Your task to perform on an android device: Open the phone app and click the voicemail tab. Image 0: 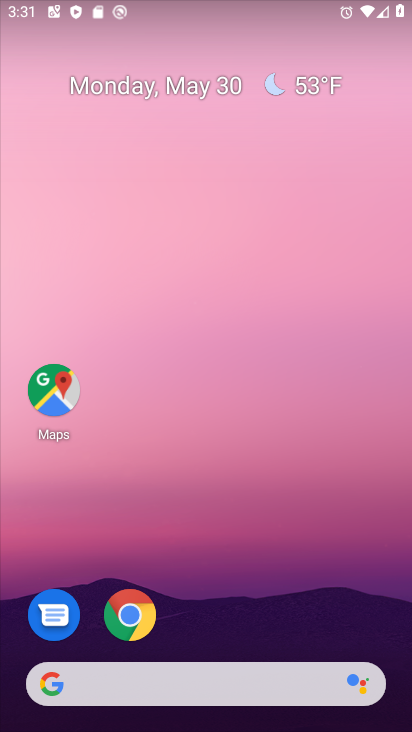
Step 0: press home button
Your task to perform on an android device: Open the phone app and click the voicemail tab. Image 1: 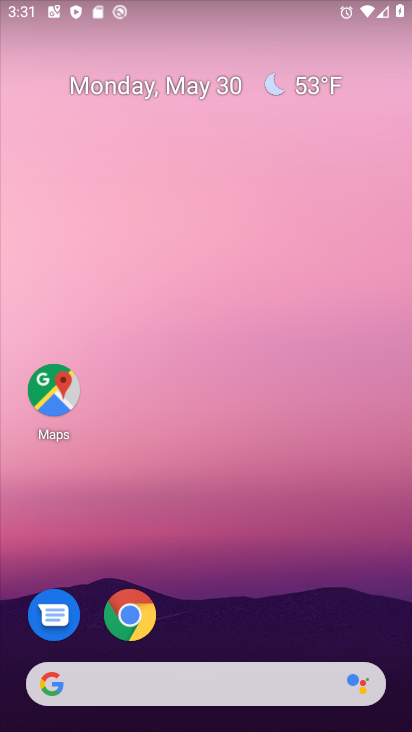
Step 1: drag from (325, 588) to (282, 152)
Your task to perform on an android device: Open the phone app and click the voicemail tab. Image 2: 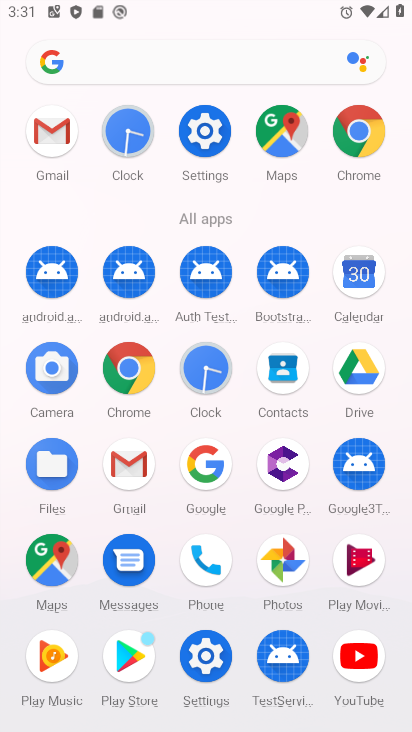
Step 2: click (201, 555)
Your task to perform on an android device: Open the phone app and click the voicemail tab. Image 3: 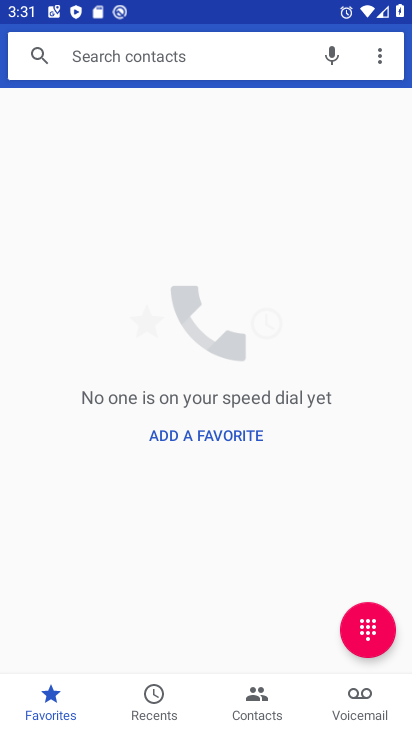
Step 3: click (367, 707)
Your task to perform on an android device: Open the phone app and click the voicemail tab. Image 4: 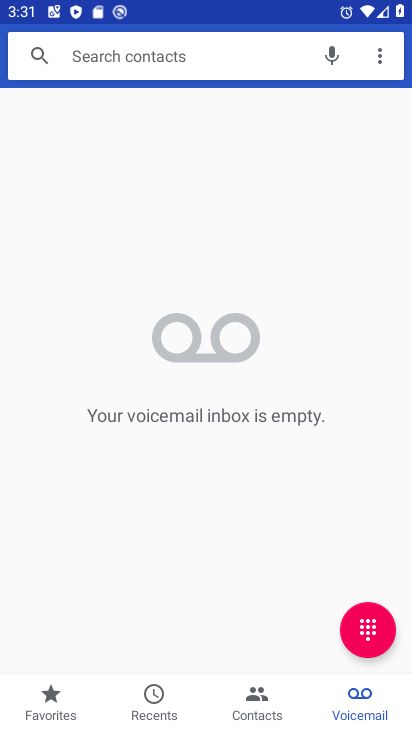
Step 4: task complete